Your task to perform on an android device: snooze an email in the gmail app Image 0: 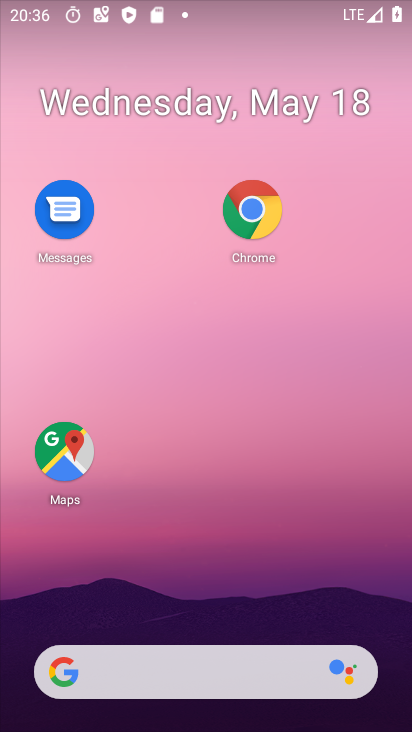
Step 0: drag from (169, 620) to (259, 44)
Your task to perform on an android device: snooze an email in the gmail app Image 1: 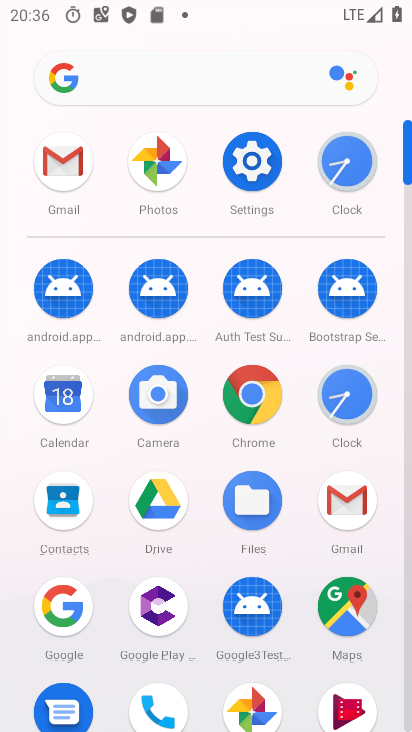
Step 1: click (70, 171)
Your task to perform on an android device: snooze an email in the gmail app Image 2: 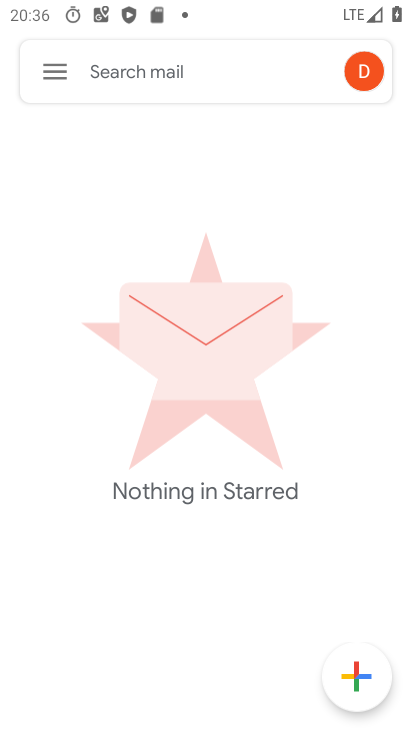
Step 2: click (60, 61)
Your task to perform on an android device: snooze an email in the gmail app Image 3: 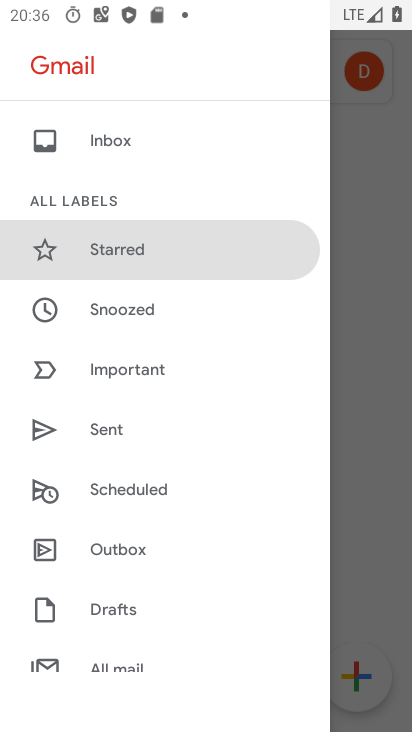
Step 3: click (118, 659)
Your task to perform on an android device: snooze an email in the gmail app Image 4: 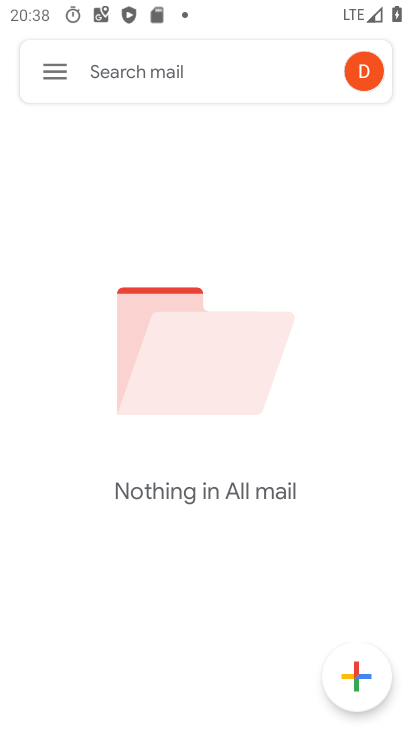
Step 4: task complete